Your task to perform on an android device: visit the assistant section in the google photos Image 0: 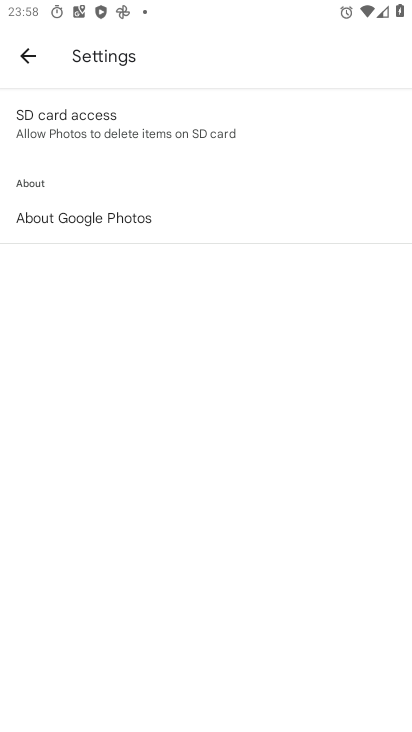
Step 0: press home button
Your task to perform on an android device: visit the assistant section in the google photos Image 1: 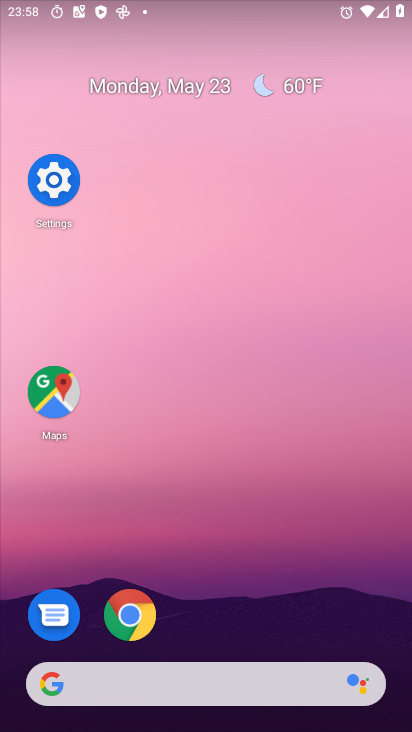
Step 1: drag from (234, 580) to (259, 2)
Your task to perform on an android device: visit the assistant section in the google photos Image 2: 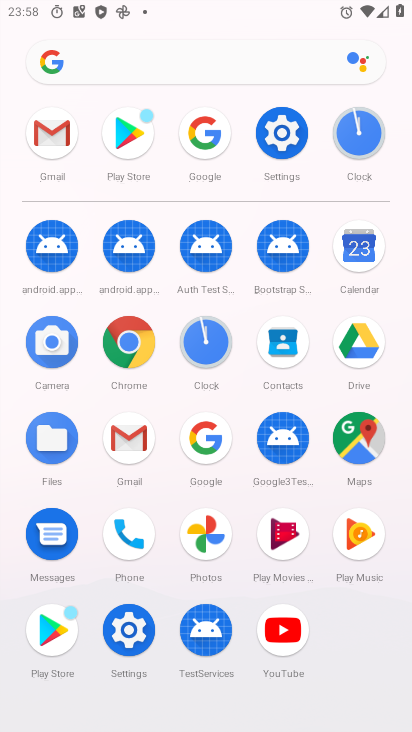
Step 2: click (205, 527)
Your task to perform on an android device: visit the assistant section in the google photos Image 3: 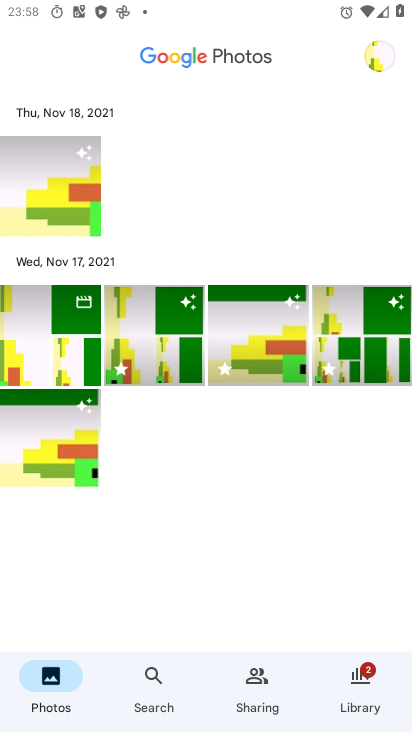
Step 3: click (240, 699)
Your task to perform on an android device: visit the assistant section in the google photos Image 4: 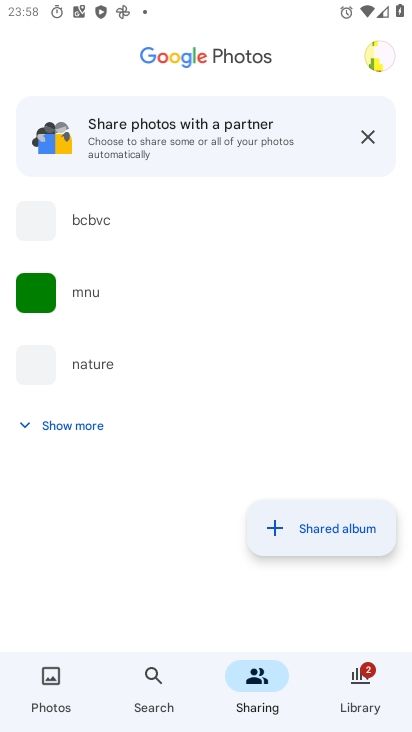
Step 4: click (336, 694)
Your task to perform on an android device: visit the assistant section in the google photos Image 5: 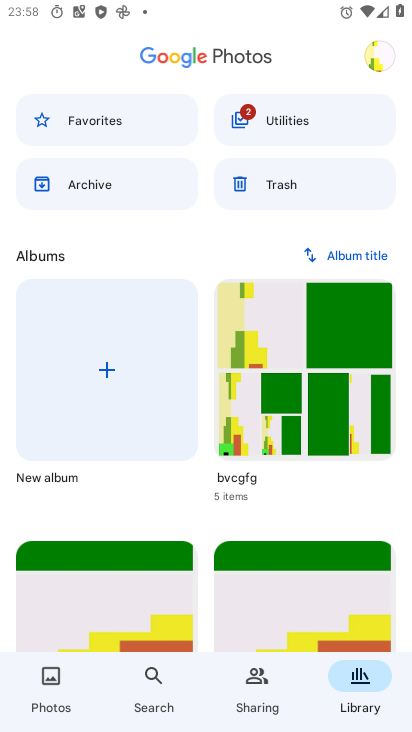
Step 5: task complete